Your task to perform on an android device: turn on airplane mode Image 0: 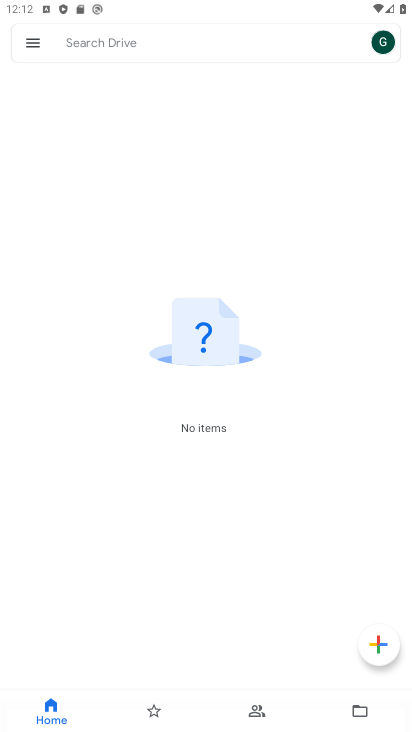
Step 0: drag from (248, 9) to (256, 532)
Your task to perform on an android device: turn on airplane mode Image 1: 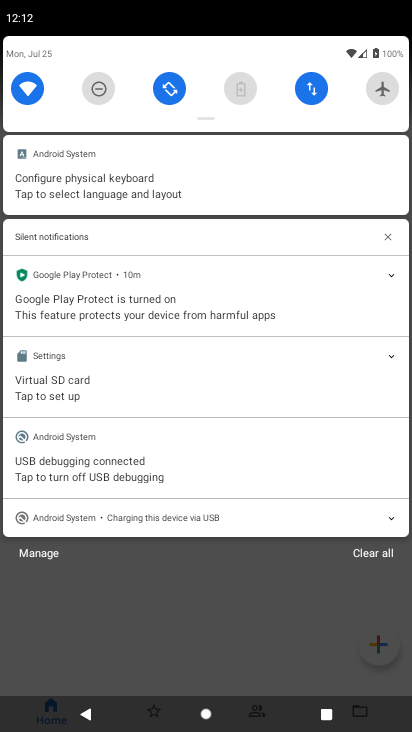
Step 1: click (373, 105)
Your task to perform on an android device: turn on airplane mode Image 2: 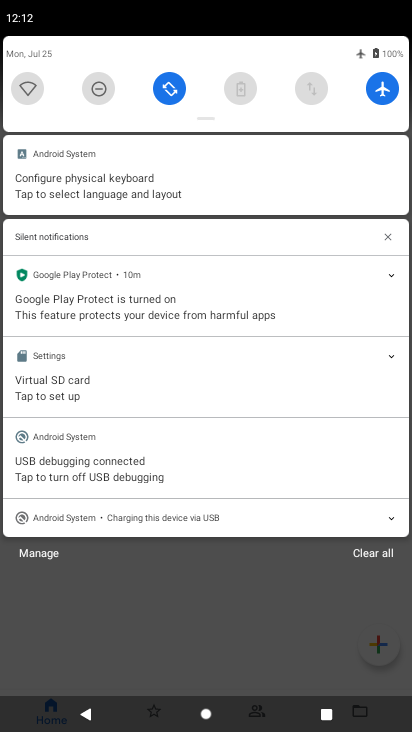
Step 2: task complete